Your task to perform on an android device: Open the stopwatch Image 0: 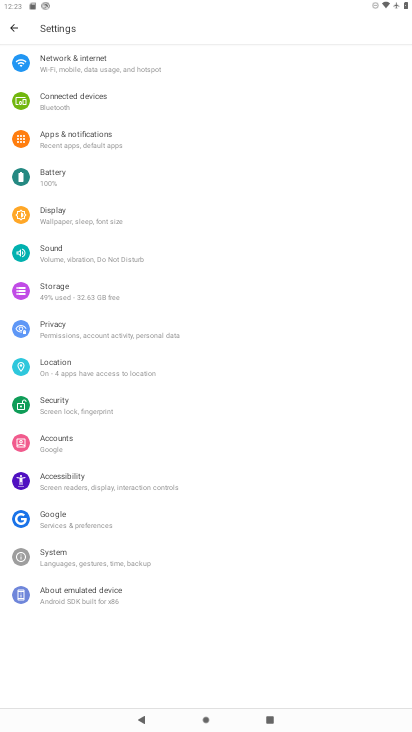
Step 0: press home button
Your task to perform on an android device: Open the stopwatch Image 1: 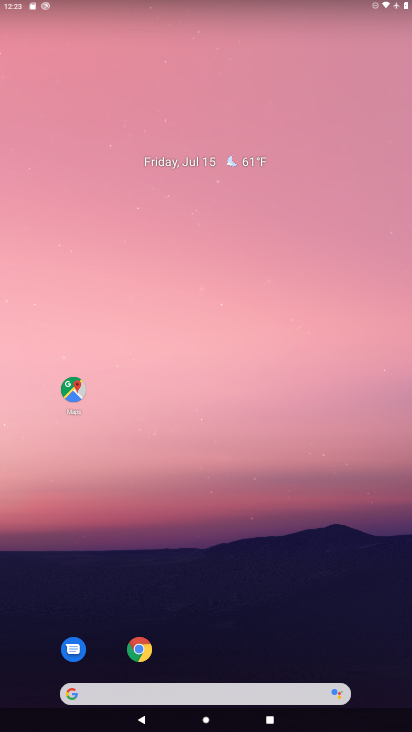
Step 1: drag from (229, 668) to (263, 56)
Your task to perform on an android device: Open the stopwatch Image 2: 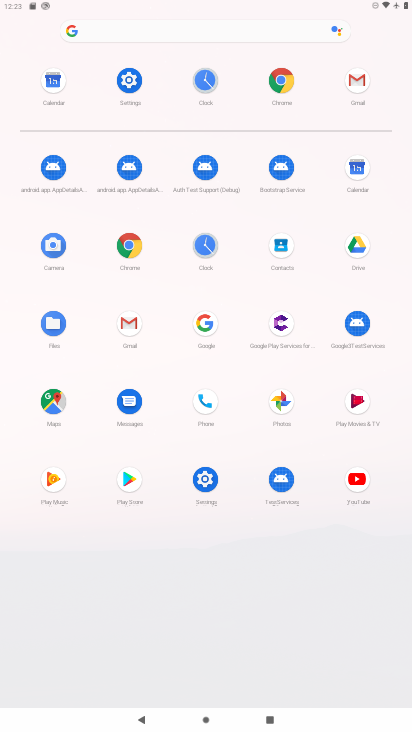
Step 2: click (210, 247)
Your task to perform on an android device: Open the stopwatch Image 3: 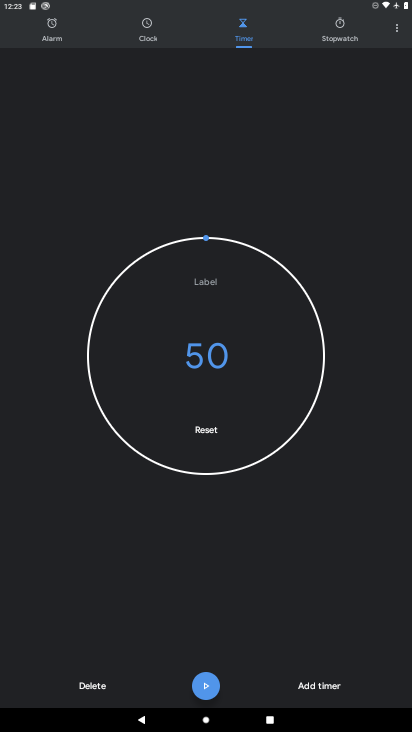
Step 3: click (333, 38)
Your task to perform on an android device: Open the stopwatch Image 4: 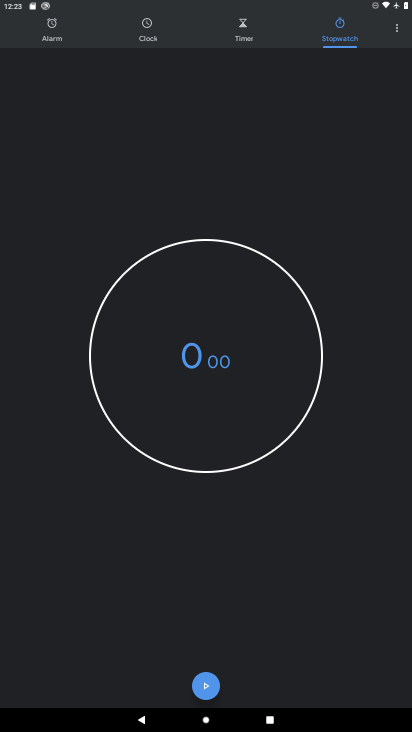
Step 4: task complete